Your task to perform on an android device: Open notification settings Image 0: 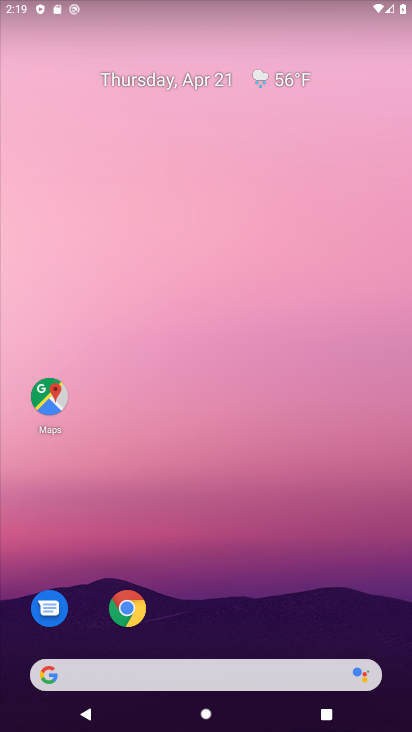
Step 0: drag from (294, 519) to (289, 101)
Your task to perform on an android device: Open notification settings Image 1: 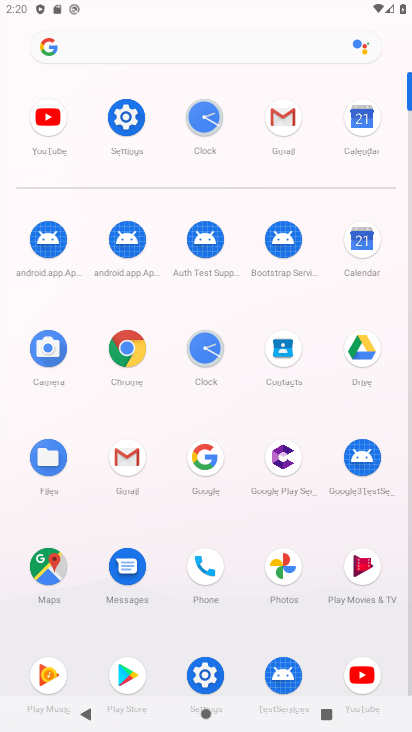
Step 1: click (132, 116)
Your task to perform on an android device: Open notification settings Image 2: 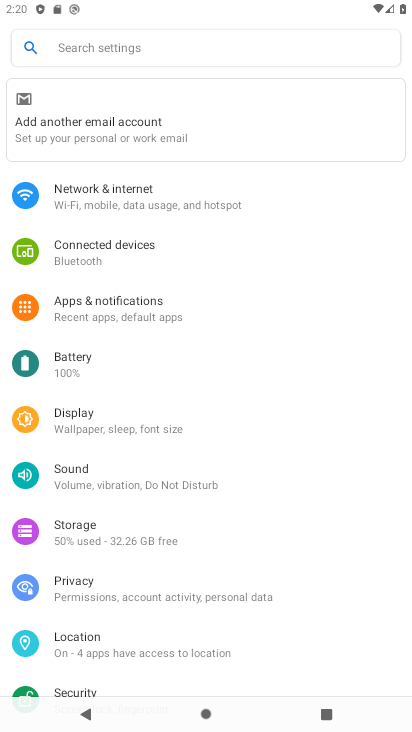
Step 2: click (158, 299)
Your task to perform on an android device: Open notification settings Image 3: 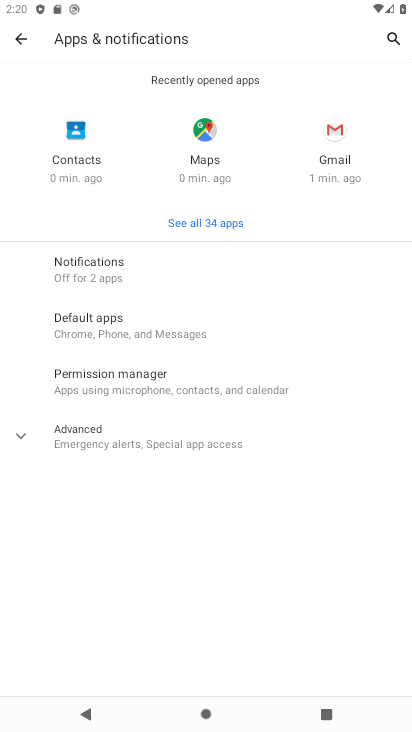
Step 3: task complete